Your task to perform on an android device: Find coffee shops on Maps Image 0: 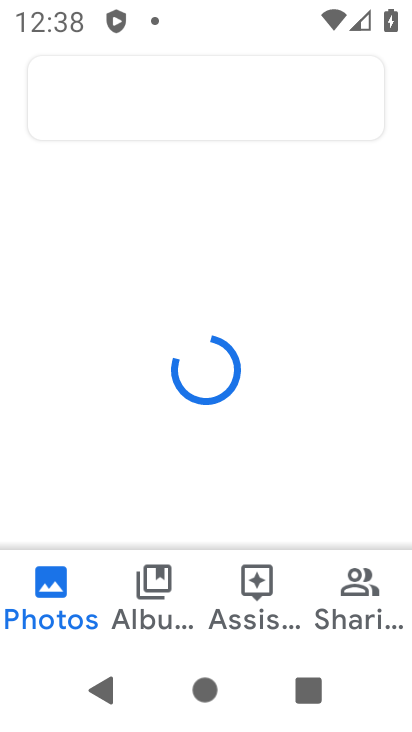
Step 0: press home button
Your task to perform on an android device: Find coffee shops on Maps Image 1: 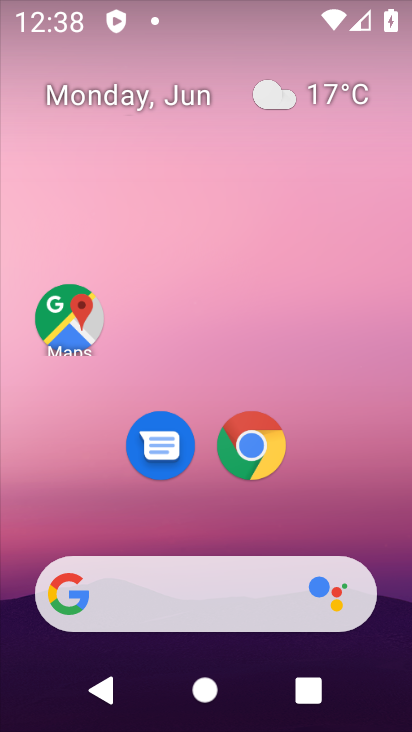
Step 1: click (69, 311)
Your task to perform on an android device: Find coffee shops on Maps Image 2: 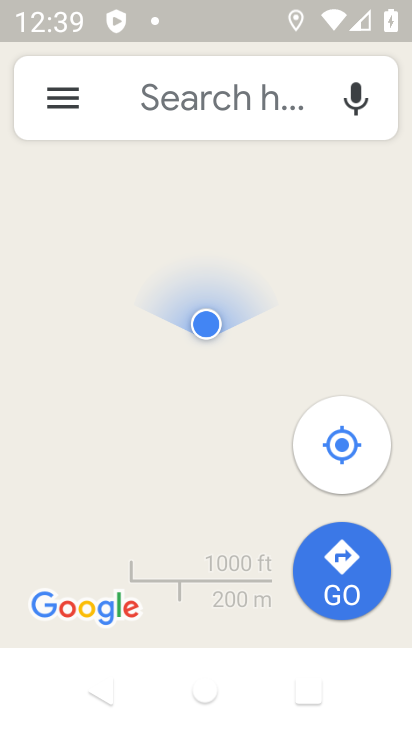
Step 2: click (159, 103)
Your task to perform on an android device: Find coffee shops on Maps Image 3: 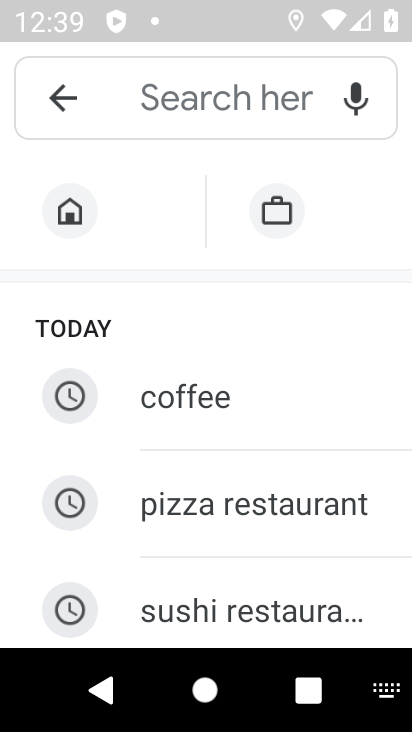
Step 3: type "coffee shops"
Your task to perform on an android device: Find coffee shops on Maps Image 4: 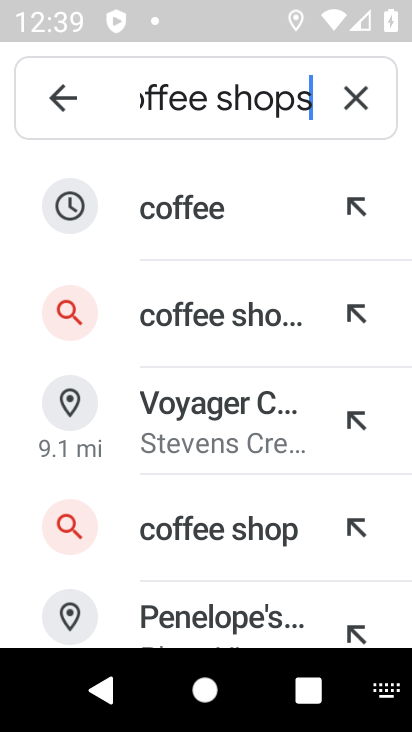
Step 4: click (180, 318)
Your task to perform on an android device: Find coffee shops on Maps Image 5: 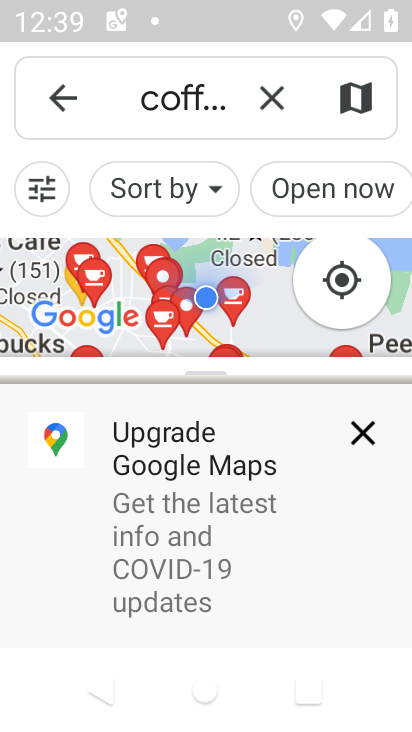
Step 5: click (369, 421)
Your task to perform on an android device: Find coffee shops on Maps Image 6: 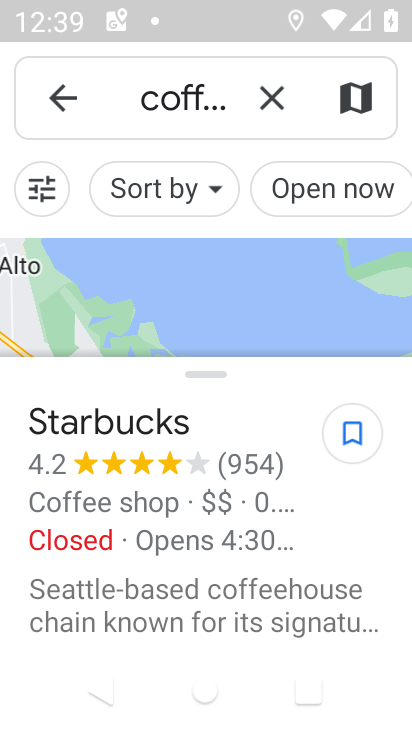
Step 6: task complete